Your task to perform on an android device: Open Android settings Image 0: 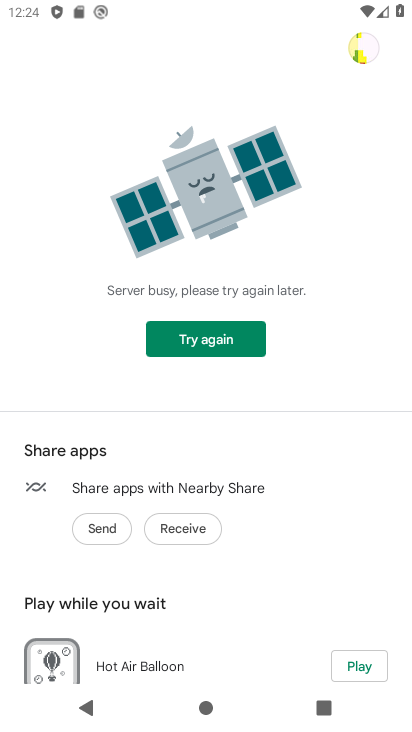
Step 0: press home button
Your task to perform on an android device: Open Android settings Image 1: 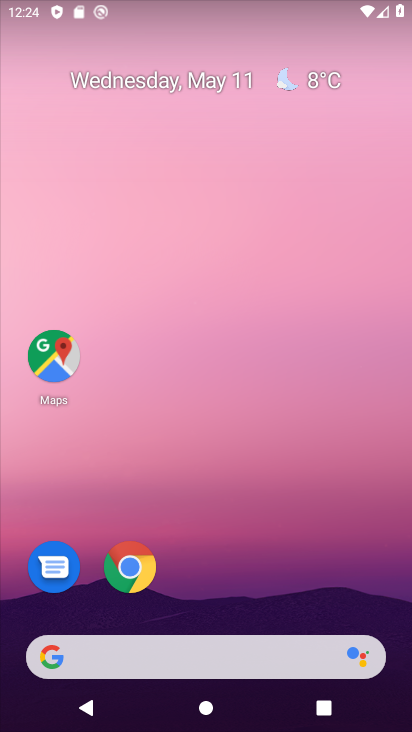
Step 1: drag from (193, 637) to (319, 173)
Your task to perform on an android device: Open Android settings Image 2: 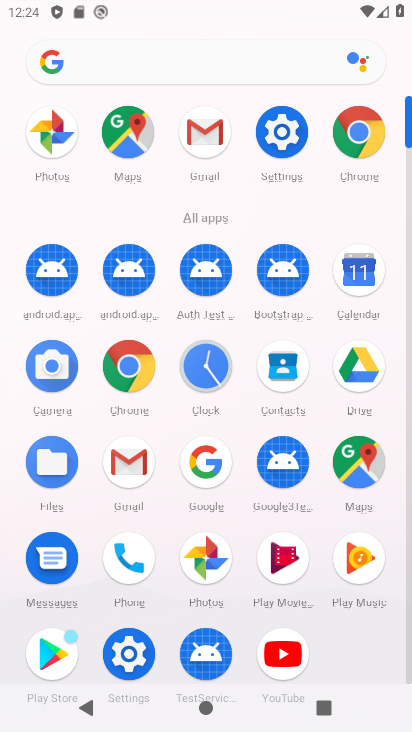
Step 2: click (139, 684)
Your task to perform on an android device: Open Android settings Image 3: 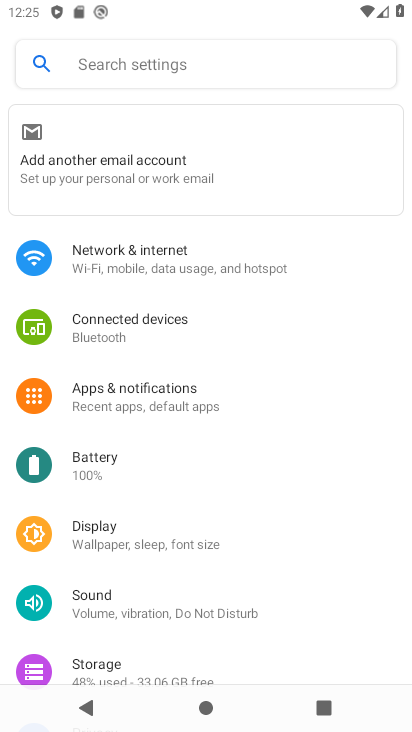
Step 3: task complete